Your task to perform on an android device: Open battery settings Image 0: 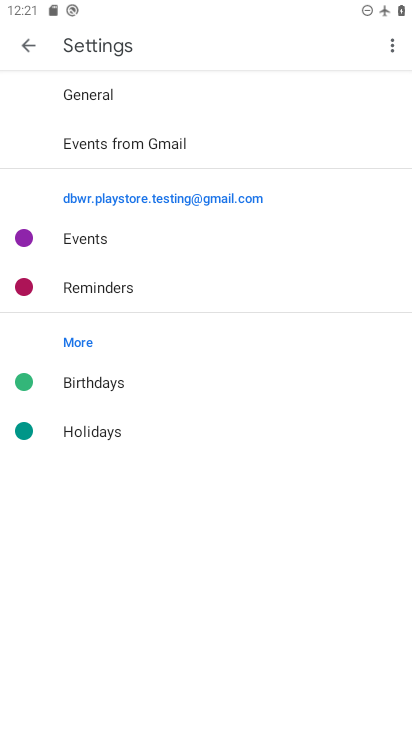
Step 0: press home button
Your task to perform on an android device: Open battery settings Image 1: 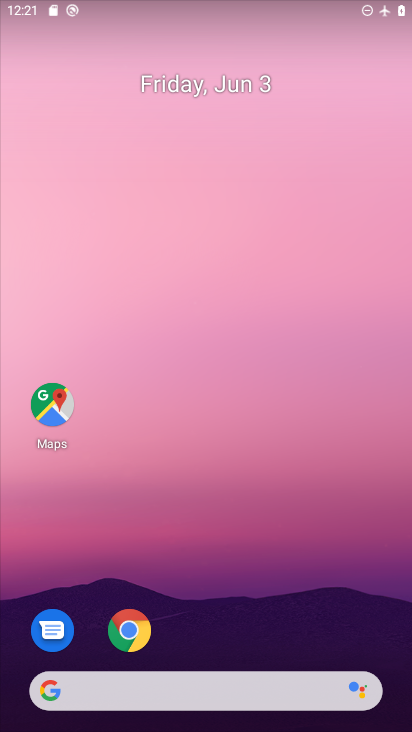
Step 1: drag from (305, 596) to (199, 115)
Your task to perform on an android device: Open battery settings Image 2: 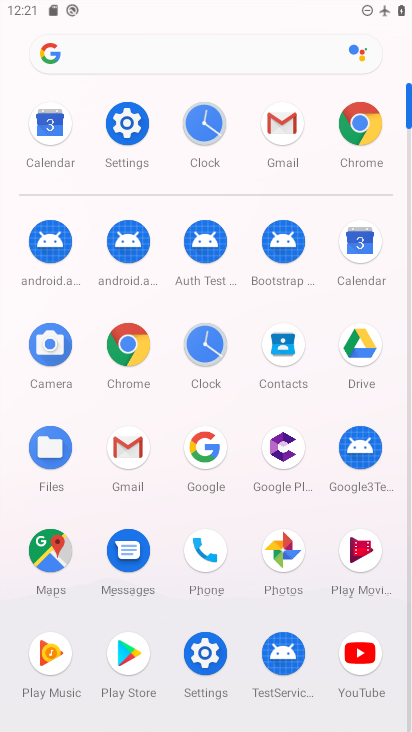
Step 2: click (138, 139)
Your task to perform on an android device: Open battery settings Image 3: 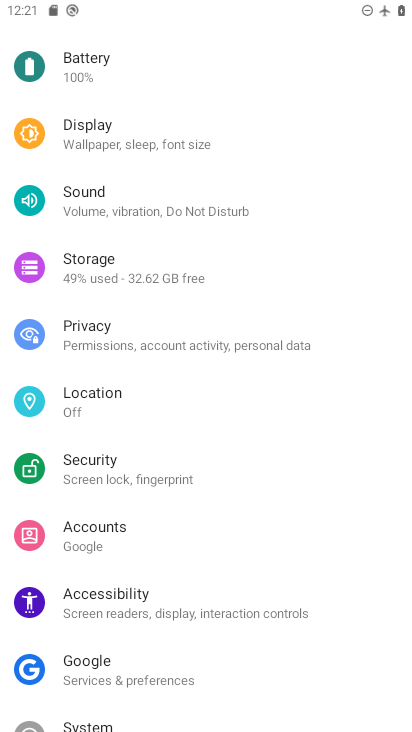
Step 3: click (159, 79)
Your task to perform on an android device: Open battery settings Image 4: 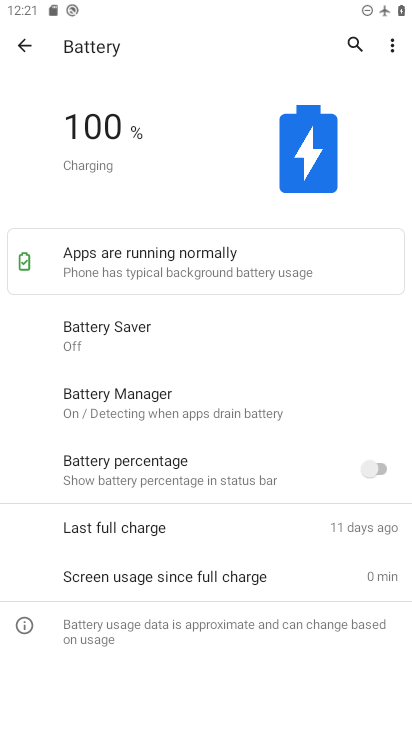
Step 4: task complete